Your task to perform on an android device: Open Amazon Image 0: 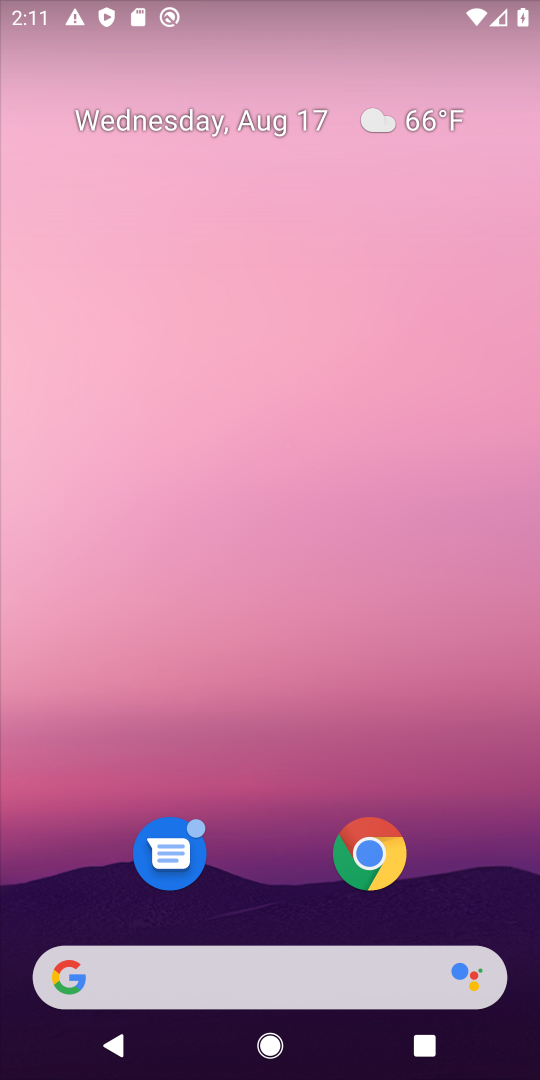
Step 0: drag from (246, 891) to (359, 46)
Your task to perform on an android device: Open Amazon Image 1: 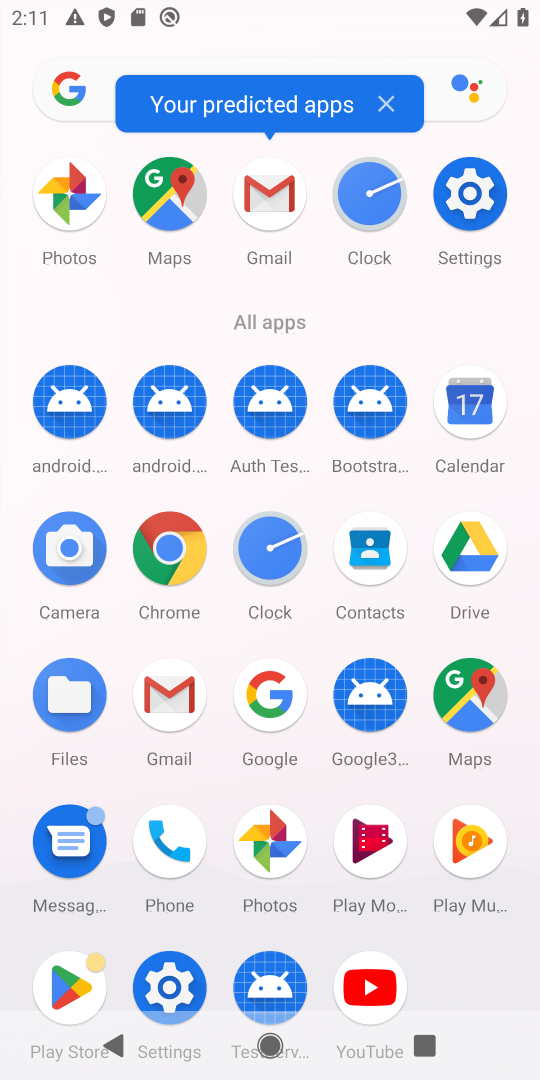
Step 1: click (168, 538)
Your task to perform on an android device: Open Amazon Image 2: 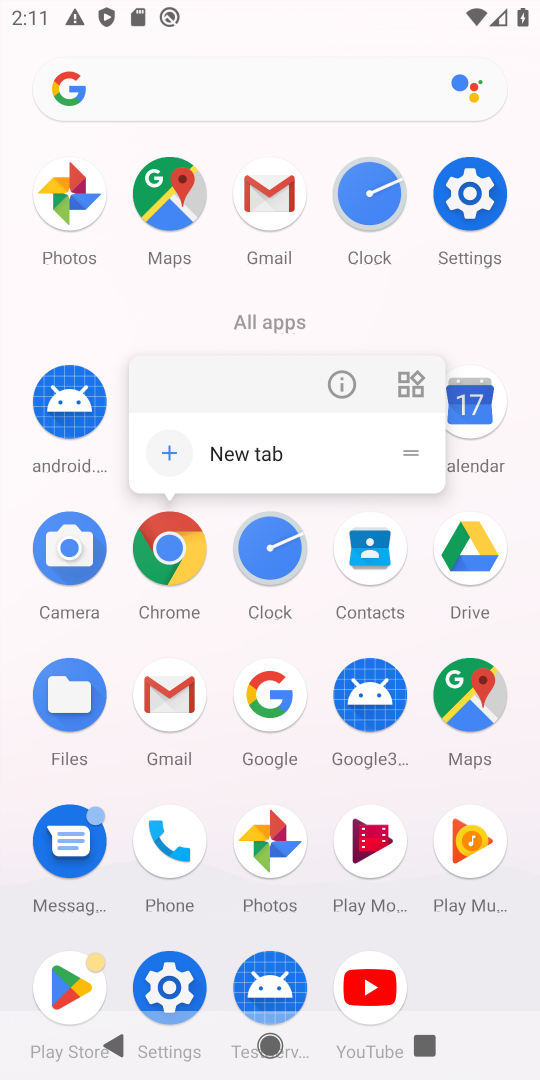
Step 2: click (179, 541)
Your task to perform on an android device: Open Amazon Image 3: 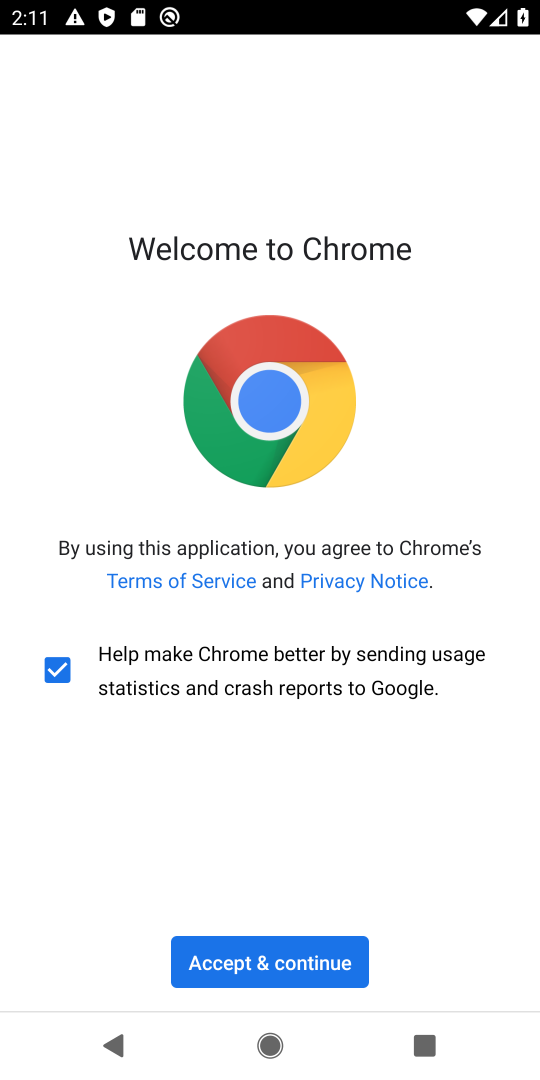
Step 3: click (282, 961)
Your task to perform on an android device: Open Amazon Image 4: 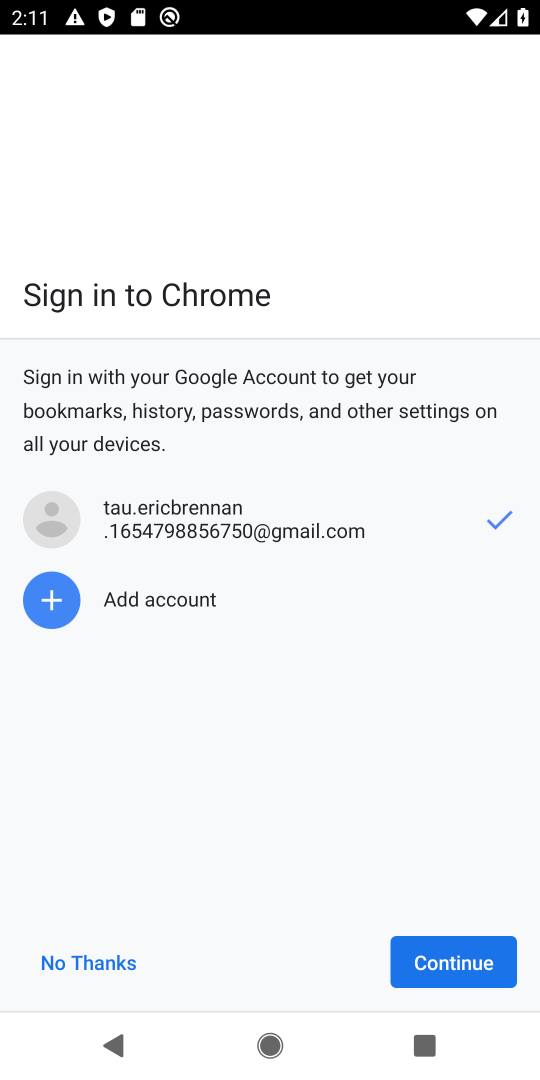
Step 4: click (486, 947)
Your task to perform on an android device: Open Amazon Image 5: 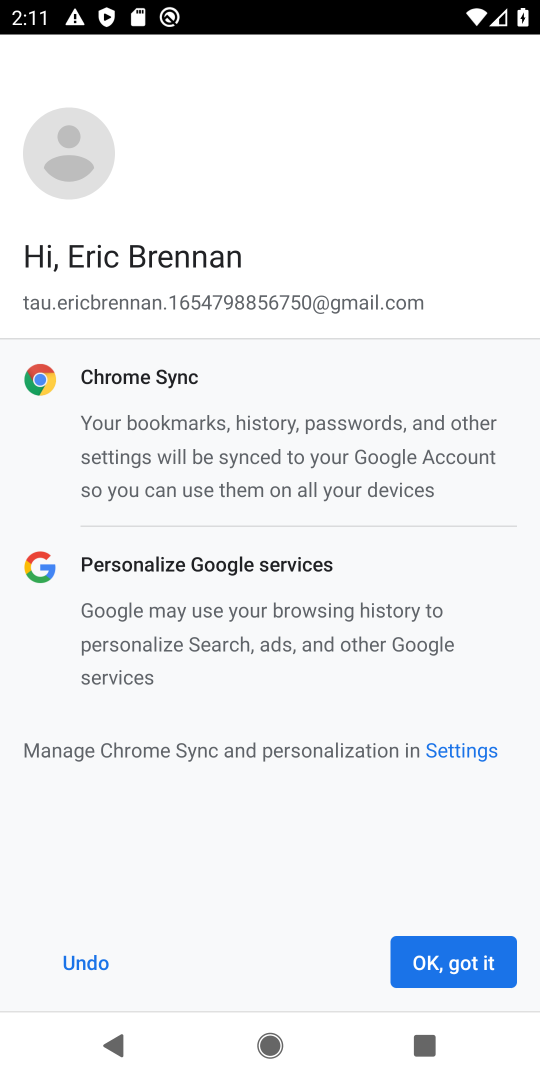
Step 5: click (488, 979)
Your task to perform on an android device: Open Amazon Image 6: 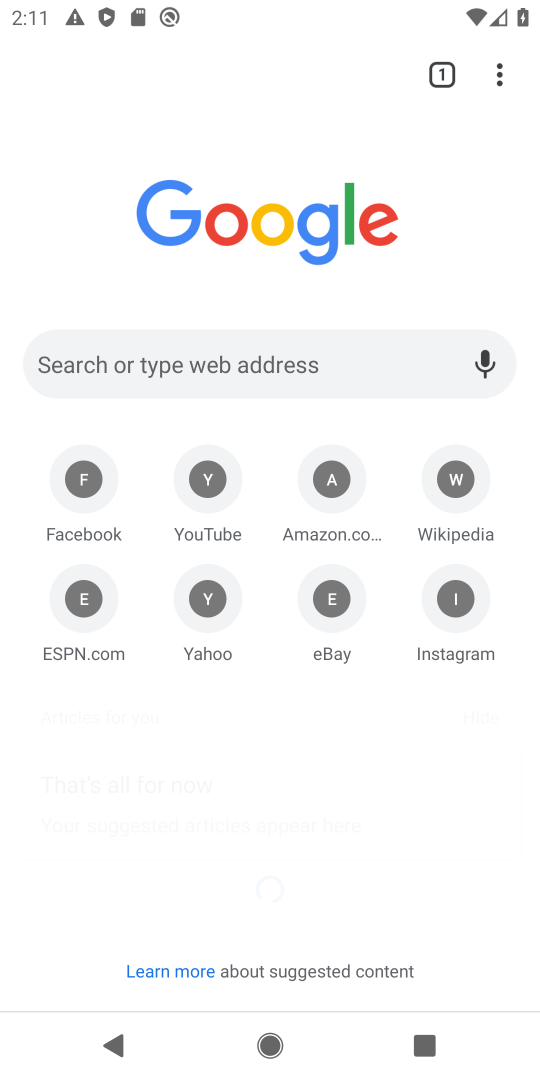
Step 6: click (130, 66)
Your task to perform on an android device: Open Amazon Image 7: 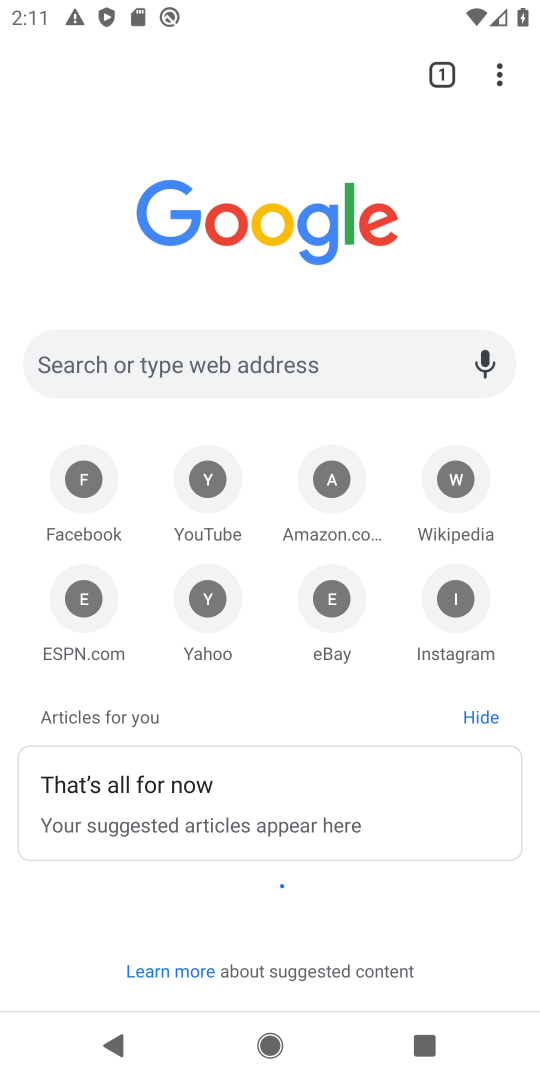
Step 7: click (329, 491)
Your task to perform on an android device: Open Amazon Image 8: 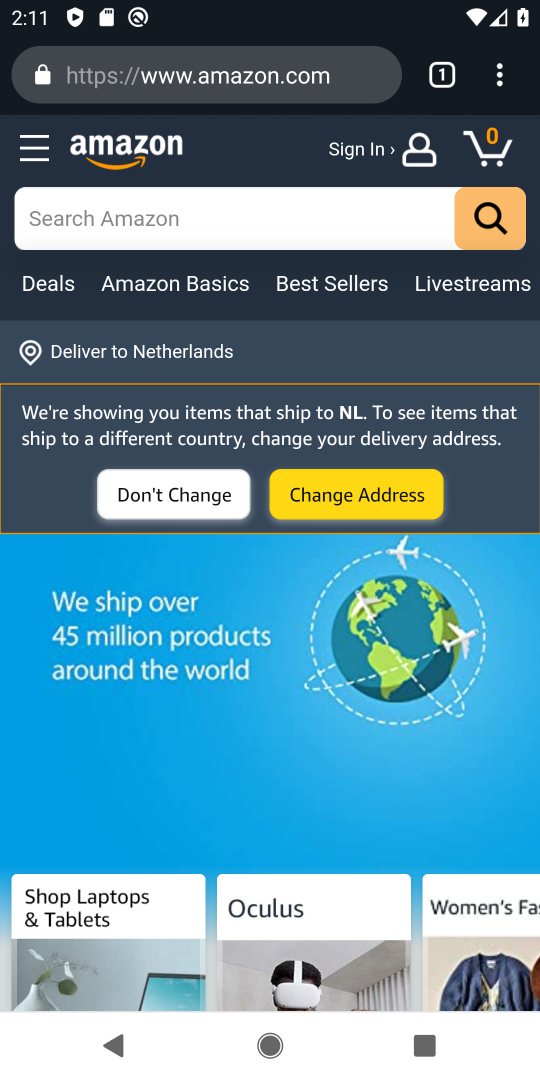
Step 8: task complete